Your task to perform on an android device: Open Yahoo.com Image 0: 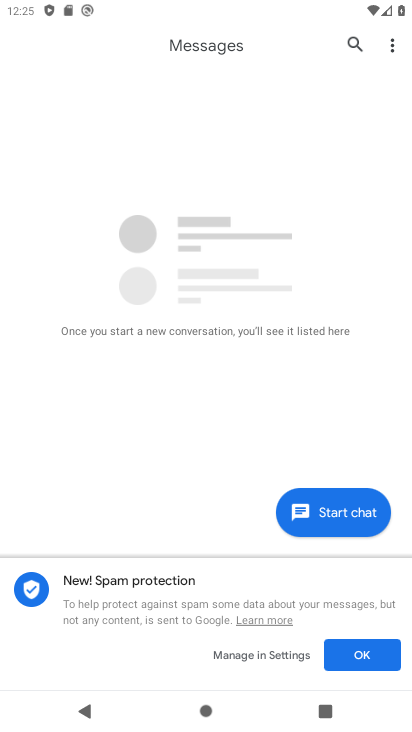
Step 0: press home button
Your task to perform on an android device: Open Yahoo.com Image 1: 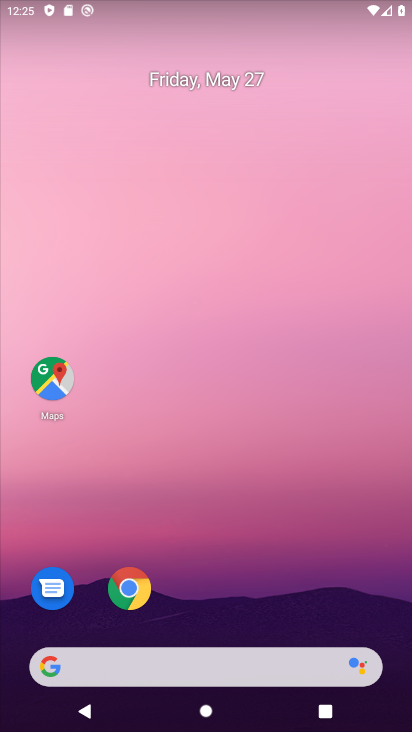
Step 1: click (141, 580)
Your task to perform on an android device: Open Yahoo.com Image 2: 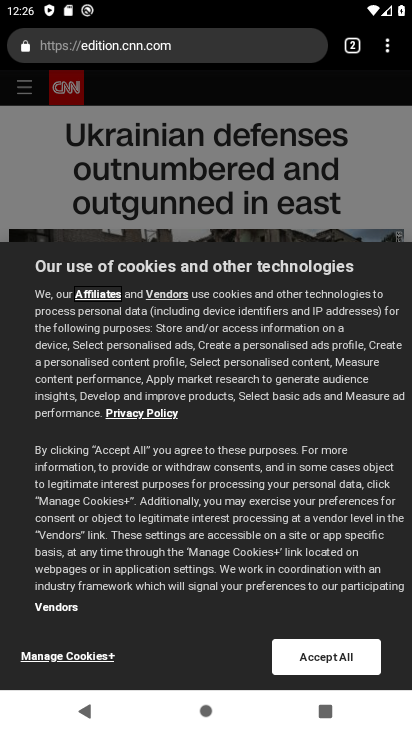
Step 2: click (354, 49)
Your task to perform on an android device: Open Yahoo.com Image 3: 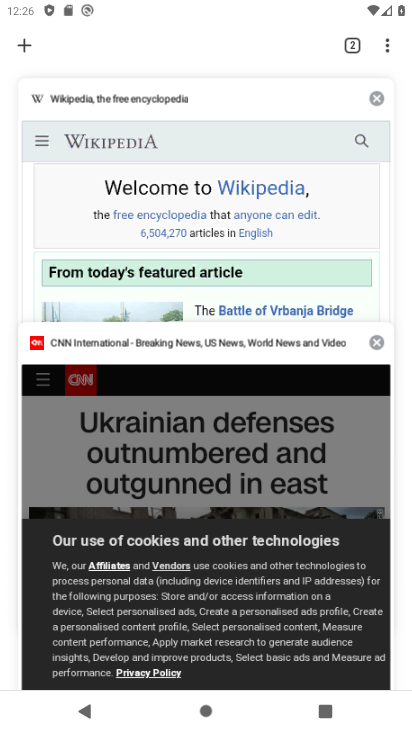
Step 3: click (17, 38)
Your task to perform on an android device: Open Yahoo.com Image 4: 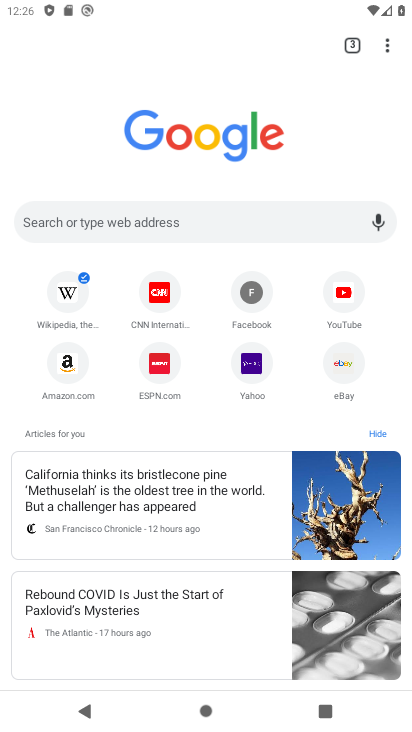
Step 4: click (247, 366)
Your task to perform on an android device: Open Yahoo.com Image 5: 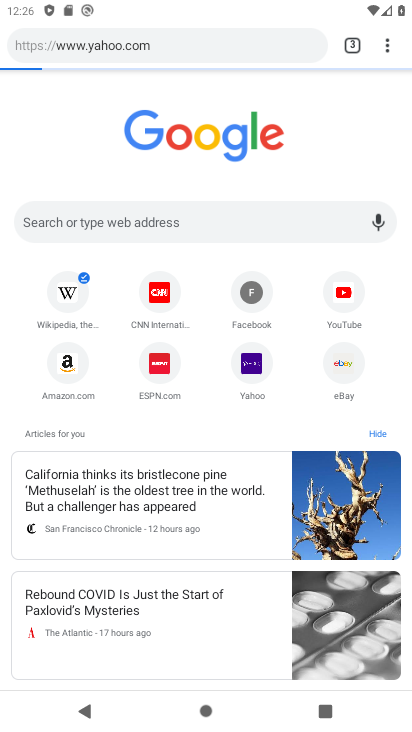
Step 5: task complete